Your task to perform on an android device: Open Amazon Image 0: 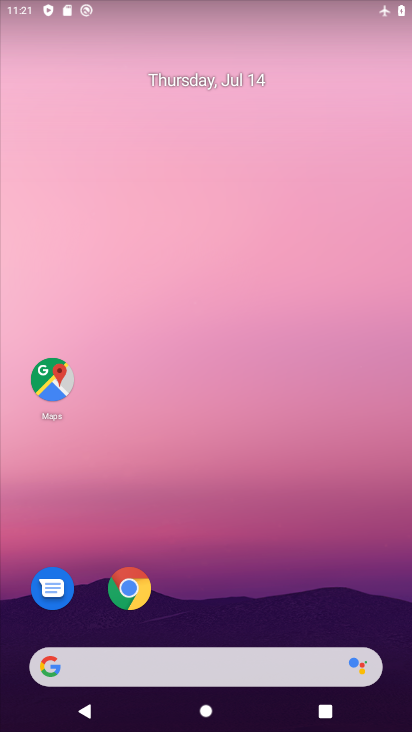
Step 0: click (136, 602)
Your task to perform on an android device: Open Amazon Image 1: 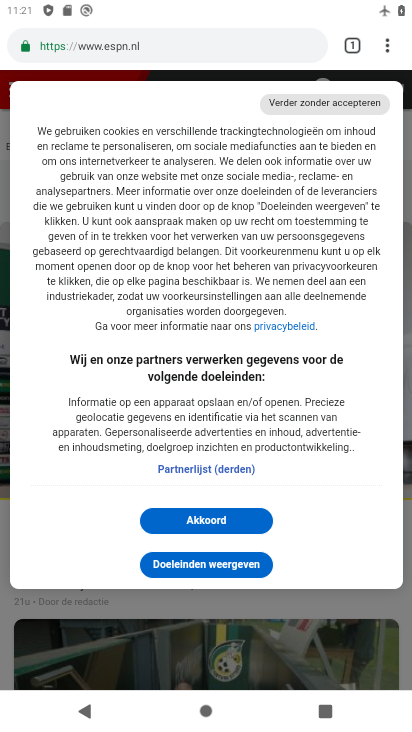
Step 1: click (220, 40)
Your task to perform on an android device: Open Amazon Image 2: 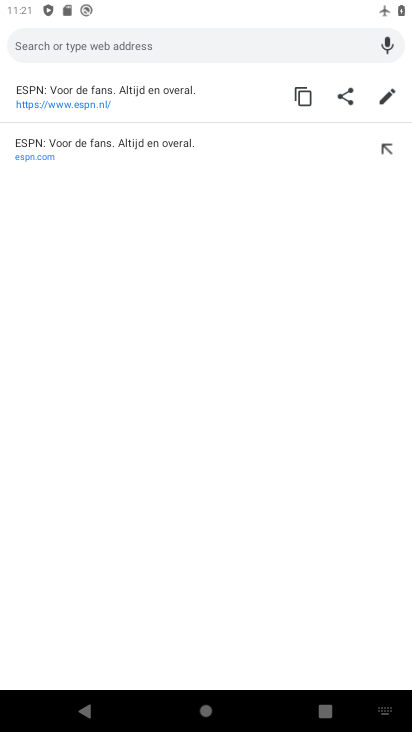
Step 2: type "Amazon"
Your task to perform on an android device: Open Amazon Image 3: 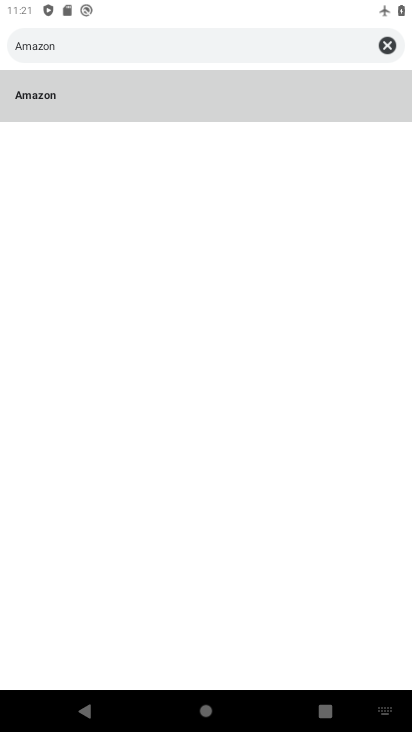
Step 3: click (64, 101)
Your task to perform on an android device: Open Amazon Image 4: 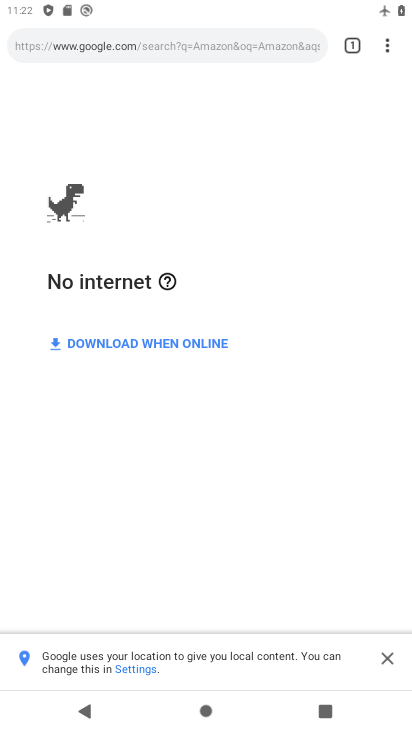
Step 4: task complete